Your task to perform on an android device: See recent photos Image 0: 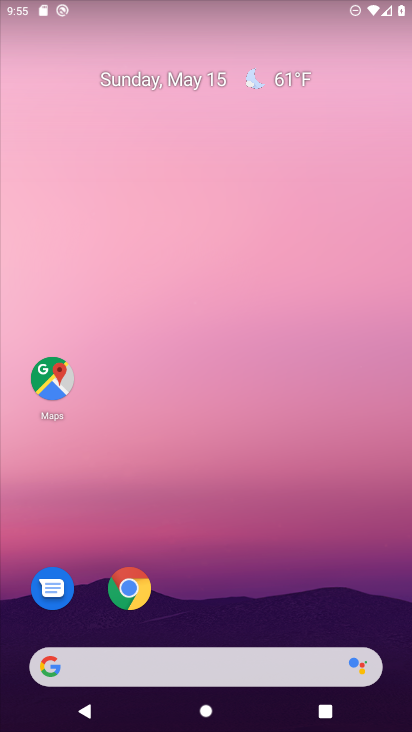
Step 0: drag from (256, 622) to (261, 40)
Your task to perform on an android device: See recent photos Image 1: 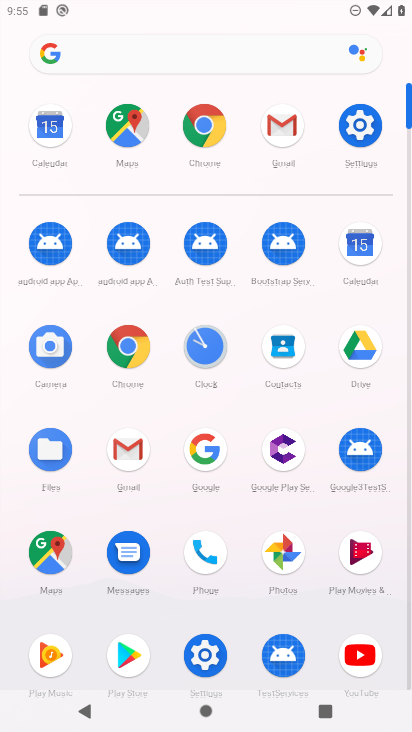
Step 1: click (280, 566)
Your task to perform on an android device: See recent photos Image 2: 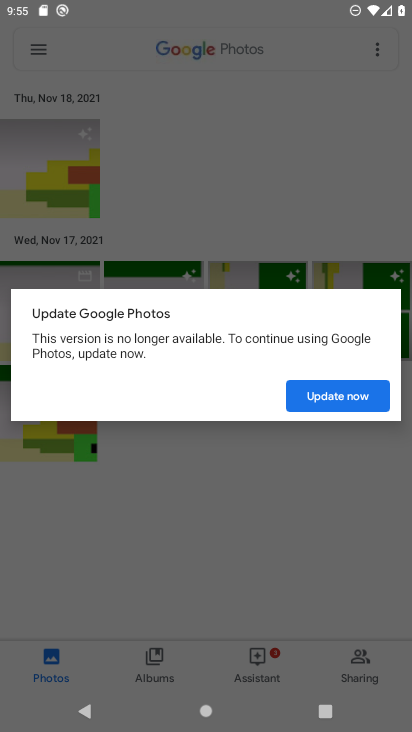
Step 2: click (368, 402)
Your task to perform on an android device: See recent photos Image 3: 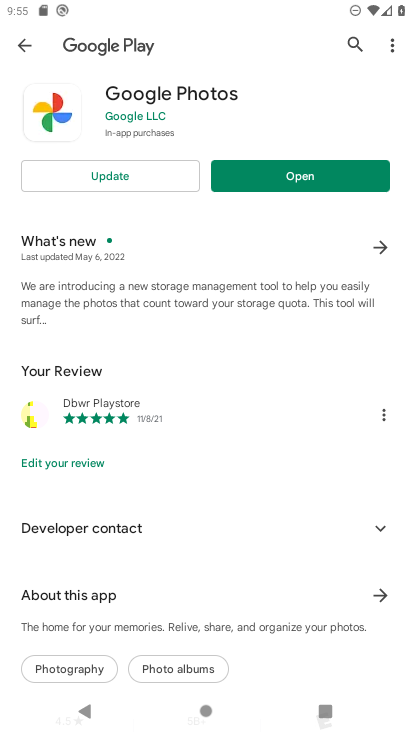
Step 3: click (284, 183)
Your task to perform on an android device: See recent photos Image 4: 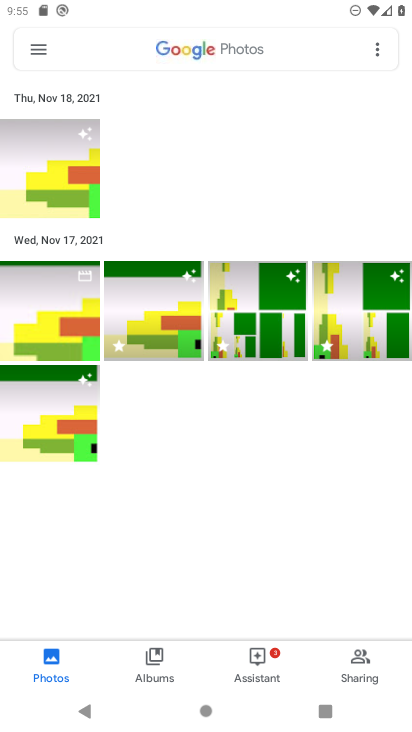
Step 4: click (61, 302)
Your task to perform on an android device: See recent photos Image 5: 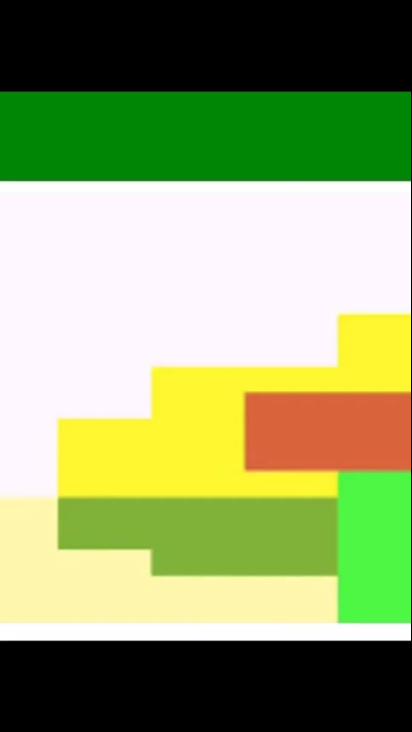
Step 5: drag from (371, 395) to (49, 320)
Your task to perform on an android device: See recent photos Image 6: 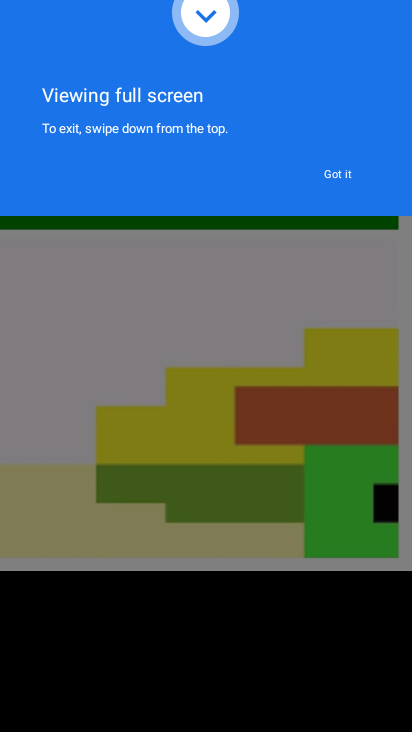
Step 6: click (340, 168)
Your task to perform on an android device: See recent photos Image 7: 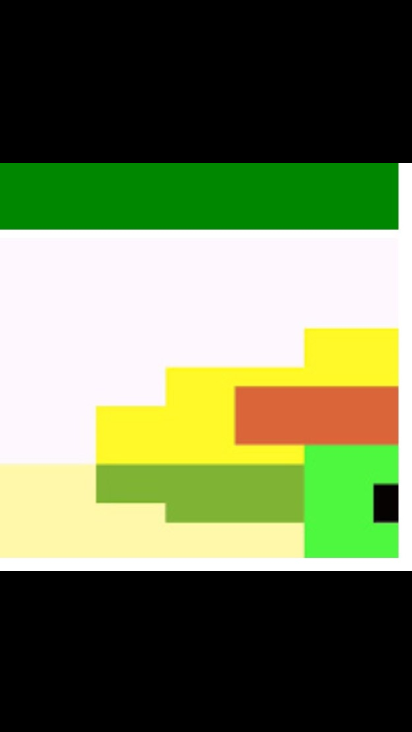
Step 7: task complete